Your task to perform on an android device: toggle pop-ups in chrome Image 0: 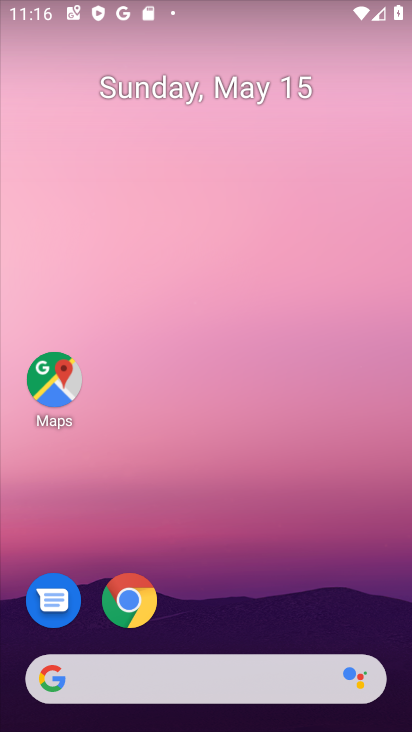
Step 0: click (149, 608)
Your task to perform on an android device: toggle pop-ups in chrome Image 1: 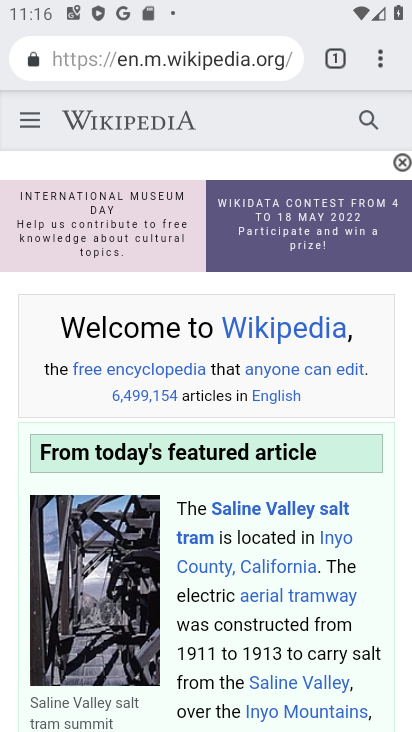
Step 1: click (387, 57)
Your task to perform on an android device: toggle pop-ups in chrome Image 2: 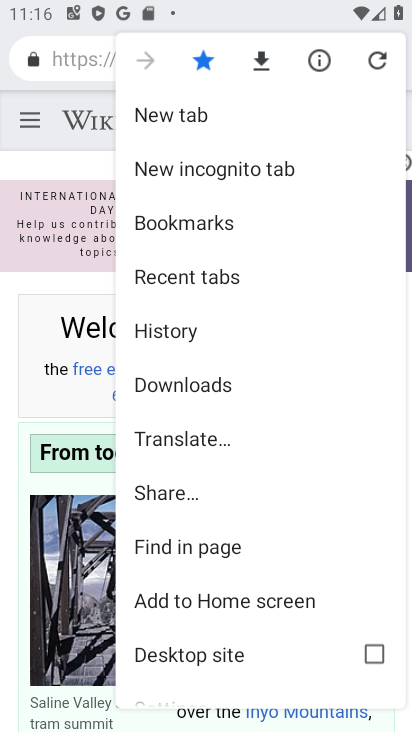
Step 2: drag from (204, 624) to (215, 10)
Your task to perform on an android device: toggle pop-ups in chrome Image 3: 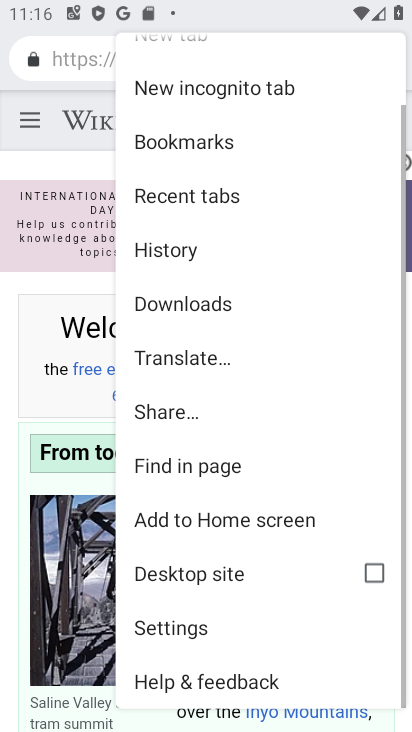
Step 3: click (201, 623)
Your task to perform on an android device: toggle pop-ups in chrome Image 4: 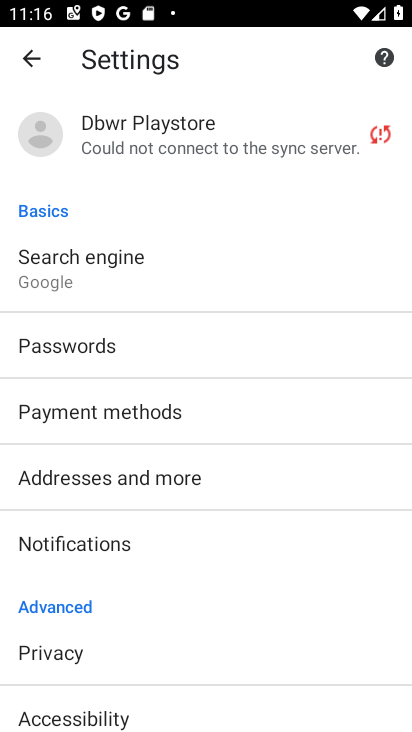
Step 4: drag from (254, 572) to (215, 1)
Your task to perform on an android device: toggle pop-ups in chrome Image 5: 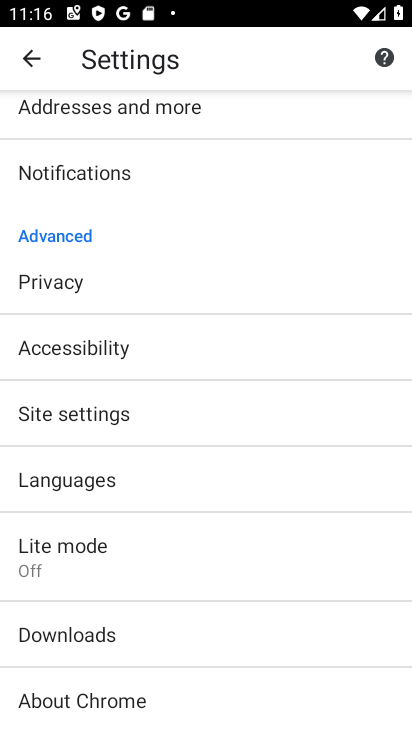
Step 5: click (76, 407)
Your task to perform on an android device: toggle pop-ups in chrome Image 6: 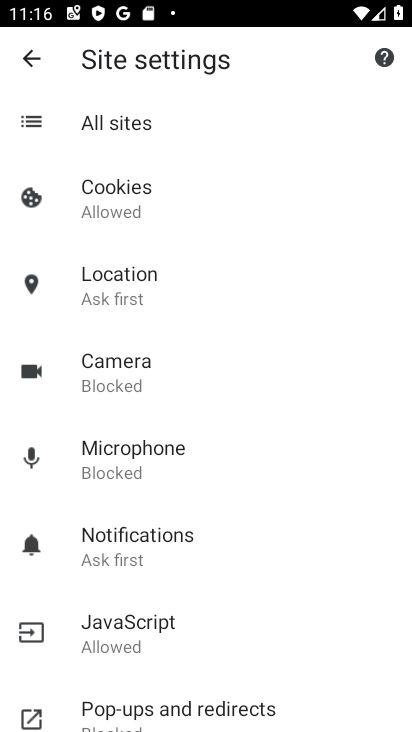
Step 6: click (114, 708)
Your task to perform on an android device: toggle pop-ups in chrome Image 7: 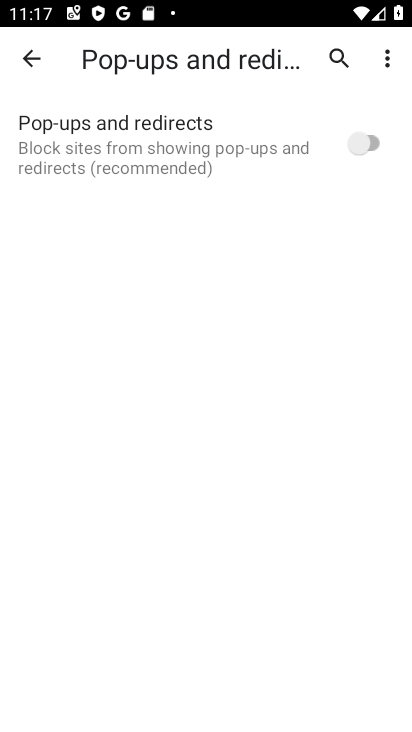
Step 7: click (359, 146)
Your task to perform on an android device: toggle pop-ups in chrome Image 8: 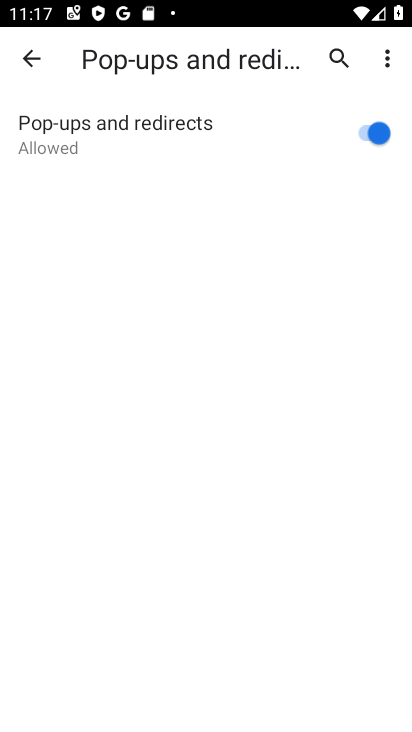
Step 8: task complete